Your task to perform on an android device: What's on the menu at In-N-Out? Image 0: 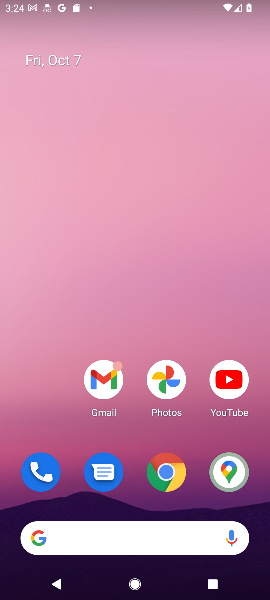
Step 0: click (165, 475)
Your task to perform on an android device: What's on the menu at In-N-Out? Image 1: 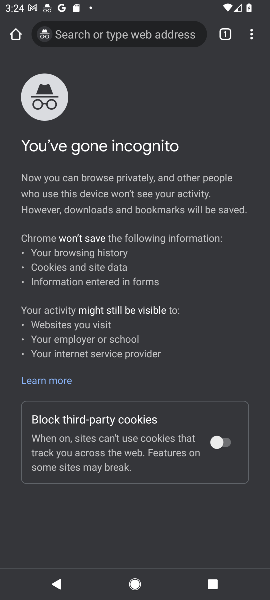
Step 1: click (250, 39)
Your task to perform on an android device: What's on the menu at In-N-Out? Image 2: 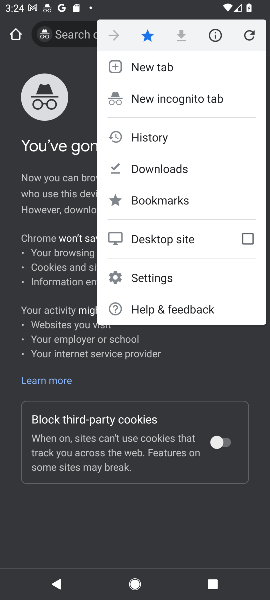
Step 2: click (174, 69)
Your task to perform on an android device: What's on the menu at In-N-Out? Image 3: 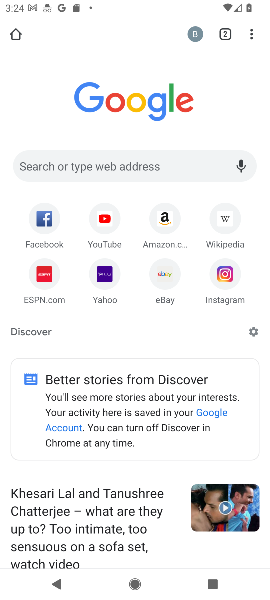
Step 3: click (130, 160)
Your task to perform on an android device: What's on the menu at In-N-Out? Image 4: 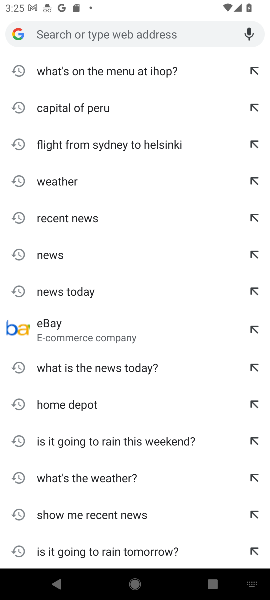
Step 4: type "what's on the menu at In-N-Out?"
Your task to perform on an android device: What's on the menu at In-N-Out? Image 5: 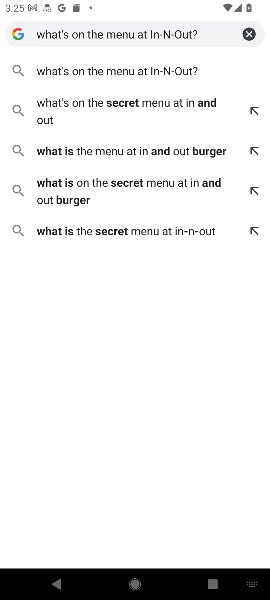
Step 5: click (166, 73)
Your task to perform on an android device: What's on the menu at In-N-Out? Image 6: 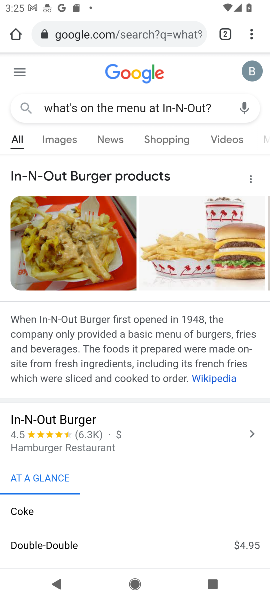
Step 6: drag from (155, 463) to (170, 340)
Your task to perform on an android device: What's on the menu at In-N-Out? Image 7: 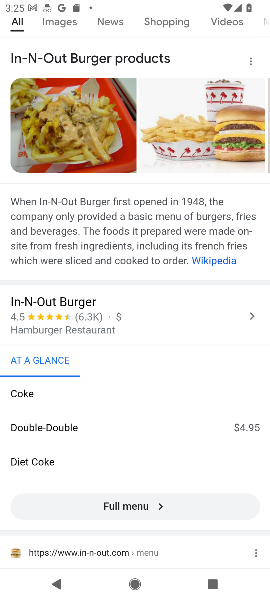
Step 7: click (138, 504)
Your task to perform on an android device: What's on the menu at In-N-Out? Image 8: 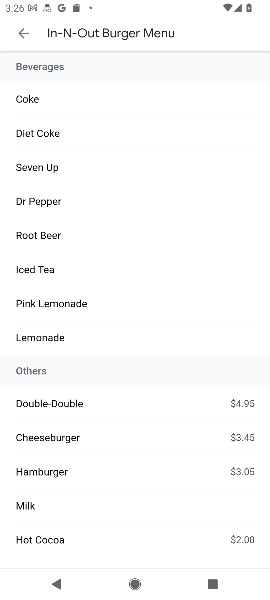
Step 8: task complete